Your task to perform on an android device: snooze an email in the gmail app Image 0: 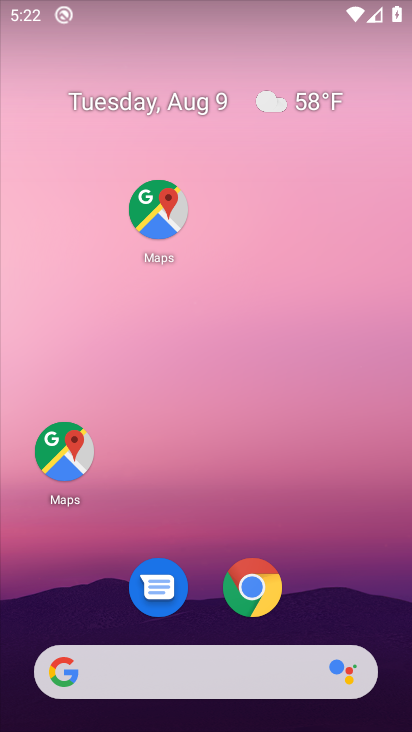
Step 0: drag from (220, 597) to (221, 107)
Your task to perform on an android device: snooze an email in the gmail app Image 1: 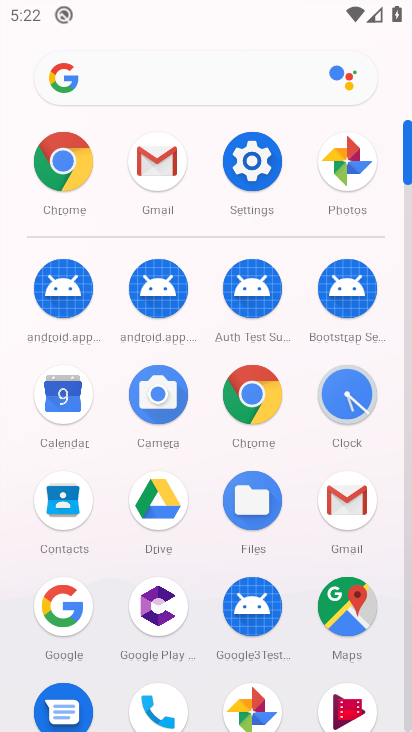
Step 1: click (345, 493)
Your task to perform on an android device: snooze an email in the gmail app Image 2: 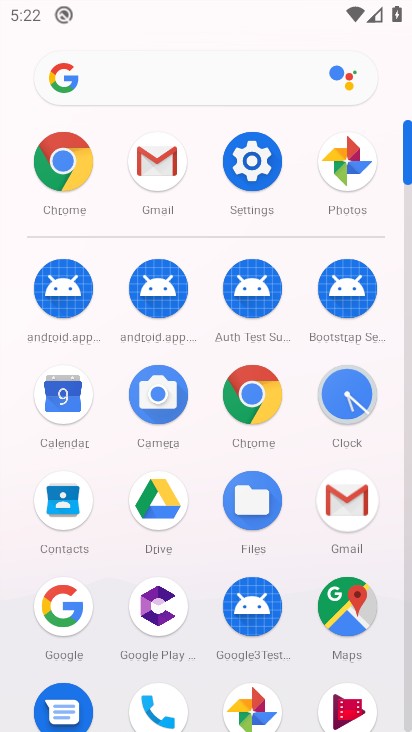
Step 2: click (344, 494)
Your task to perform on an android device: snooze an email in the gmail app Image 3: 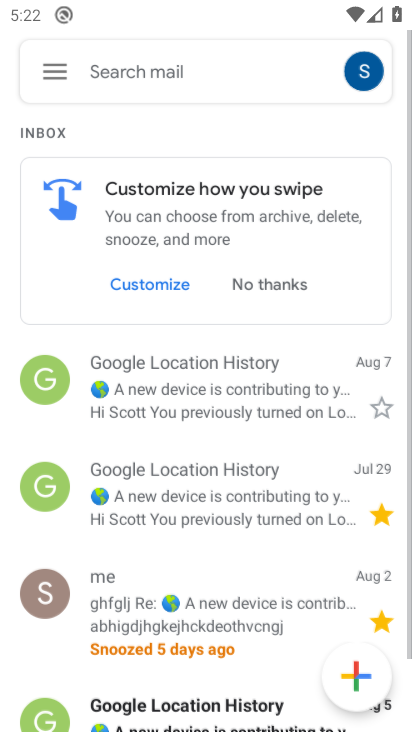
Step 3: click (346, 496)
Your task to perform on an android device: snooze an email in the gmail app Image 4: 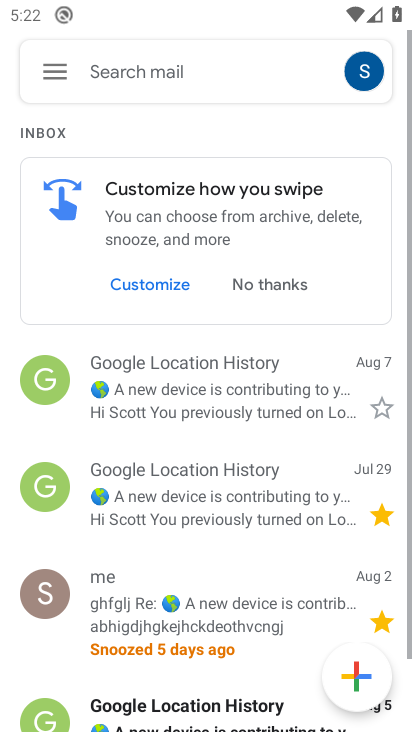
Step 4: click (346, 496)
Your task to perform on an android device: snooze an email in the gmail app Image 5: 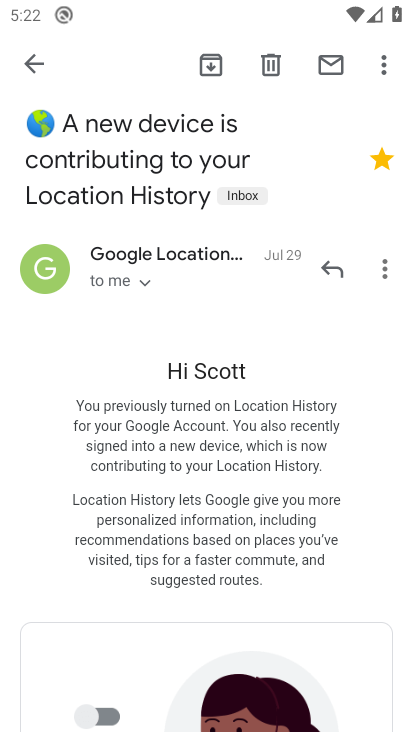
Step 5: click (28, 40)
Your task to perform on an android device: snooze an email in the gmail app Image 6: 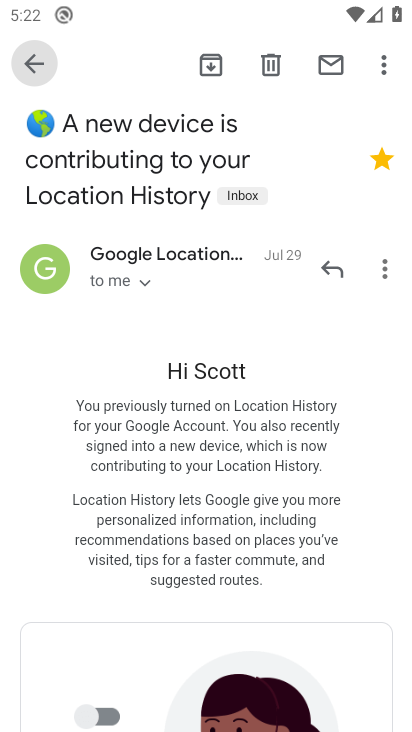
Step 6: click (26, 78)
Your task to perform on an android device: snooze an email in the gmail app Image 7: 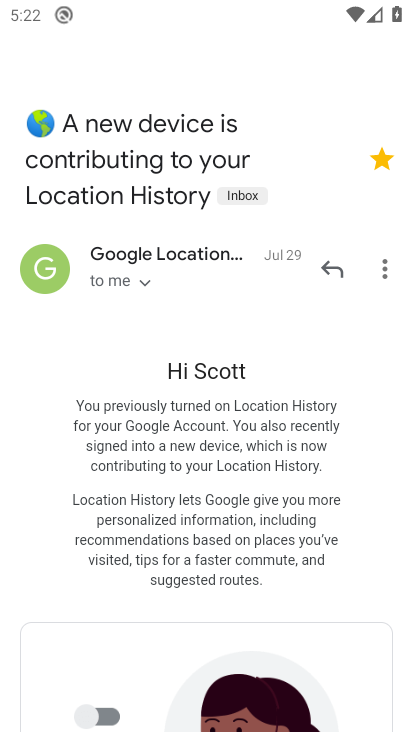
Step 7: click (26, 78)
Your task to perform on an android device: snooze an email in the gmail app Image 8: 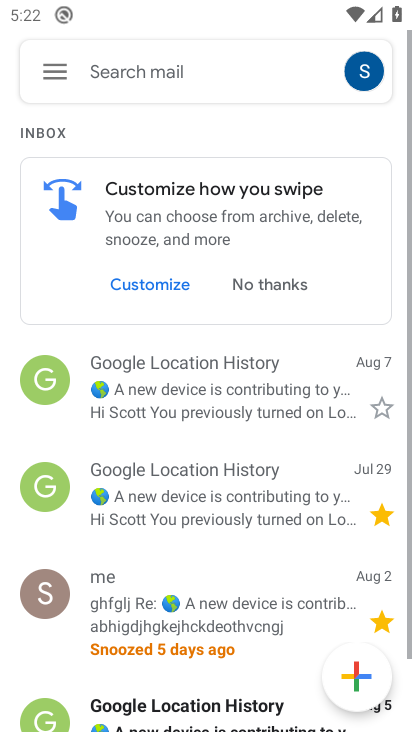
Step 8: click (224, 405)
Your task to perform on an android device: snooze an email in the gmail app Image 9: 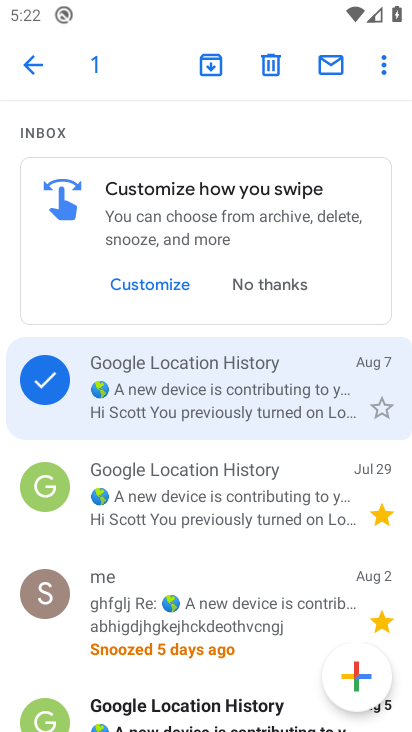
Step 9: click (383, 61)
Your task to perform on an android device: snooze an email in the gmail app Image 10: 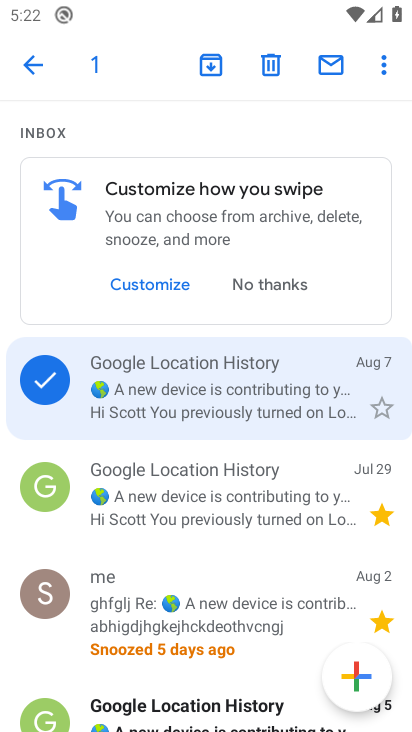
Step 10: click (380, 72)
Your task to perform on an android device: snooze an email in the gmail app Image 11: 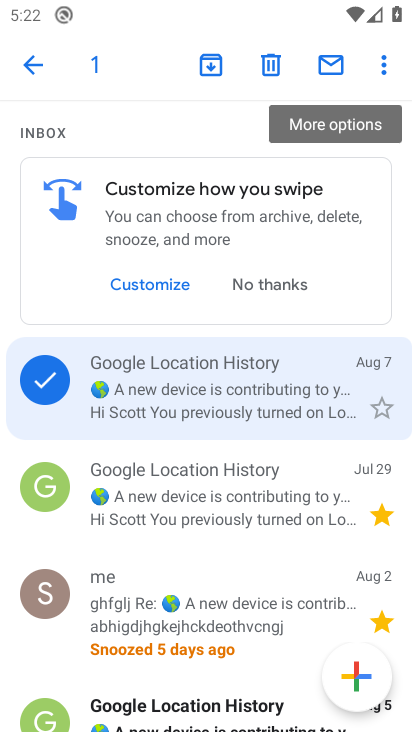
Step 11: click (388, 59)
Your task to perform on an android device: snooze an email in the gmail app Image 12: 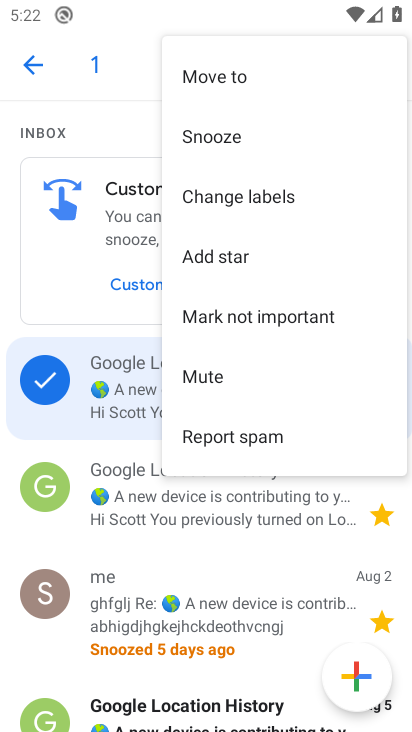
Step 12: click (207, 124)
Your task to perform on an android device: snooze an email in the gmail app Image 13: 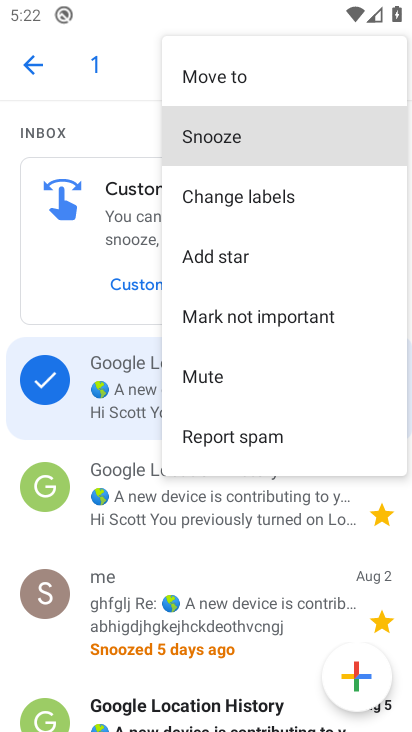
Step 13: click (218, 144)
Your task to perform on an android device: snooze an email in the gmail app Image 14: 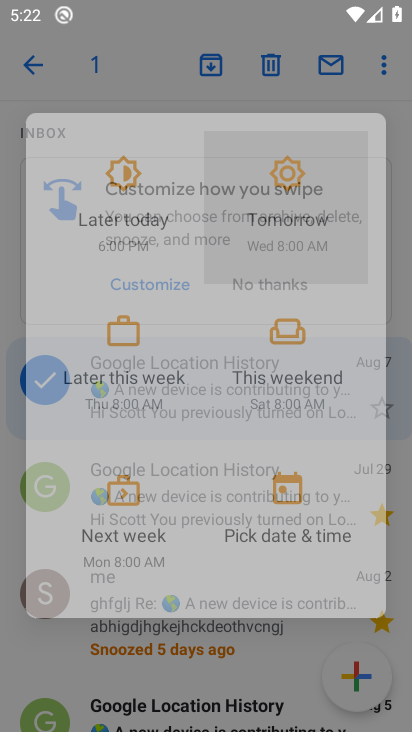
Step 14: click (218, 144)
Your task to perform on an android device: snooze an email in the gmail app Image 15: 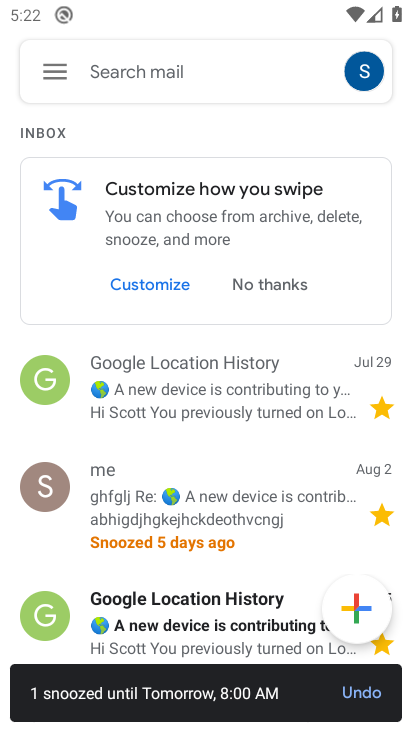
Step 15: task complete